Your task to perform on an android device: open app "Microsoft Outlook" (install if not already installed) Image 0: 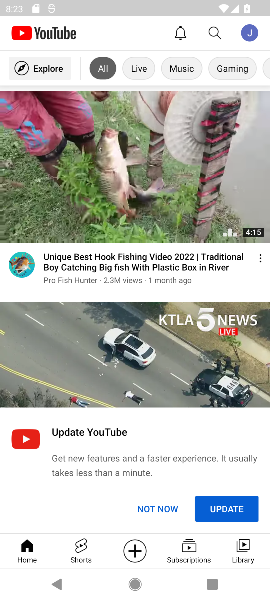
Step 0: press home button
Your task to perform on an android device: open app "Microsoft Outlook" (install if not already installed) Image 1: 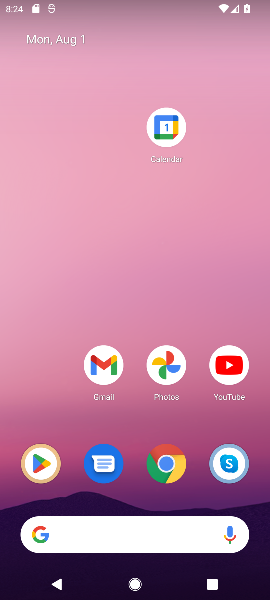
Step 1: click (28, 456)
Your task to perform on an android device: open app "Microsoft Outlook" (install if not already installed) Image 2: 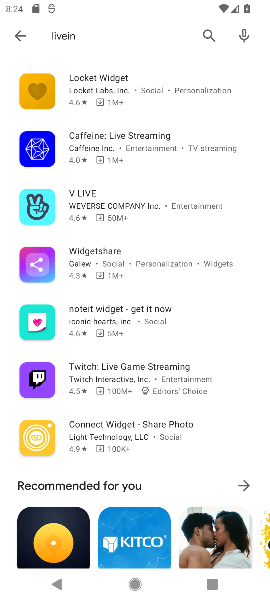
Step 2: click (203, 48)
Your task to perform on an android device: open app "Microsoft Outlook" (install if not already installed) Image 3: 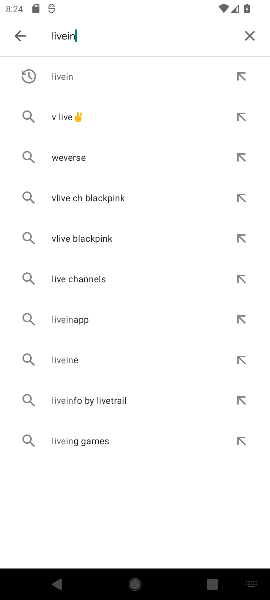
Step 3: click (245, 37)
Your task to perform on an android device: open app "Microsoft Outlook" (install if not already installed) Image 4: 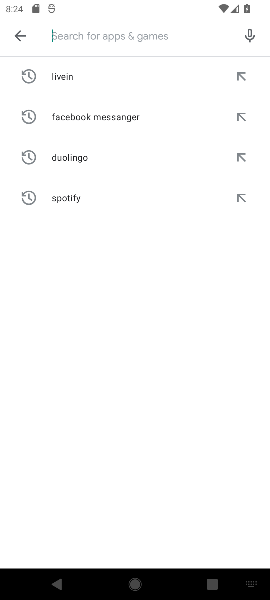
Step 4: type "outlook"
Your task to perform on an android device: open app "Microsoft Outlook" (install if not already installed) Image 5: 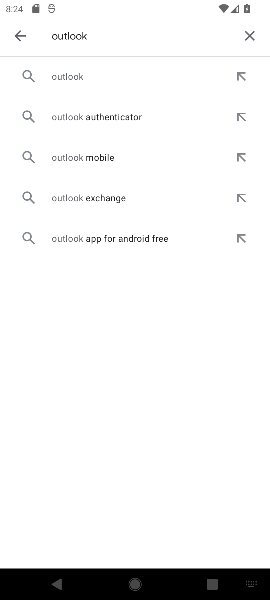
Step 5: click (97, 64)
Your task to perform on an android device: open app "Microsoft Outlook" (install if not already installed) Image 6: 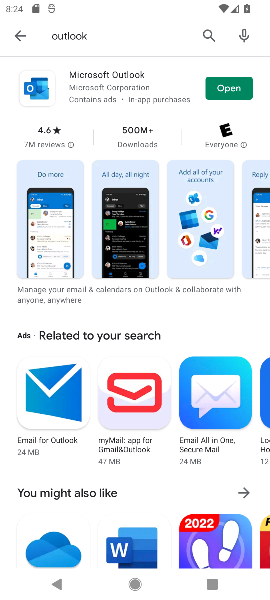
Step 6: click (241, 96)
Your task to perform on an android device: open app "Microsoft Outlook" (install if not already installed) Image 7: 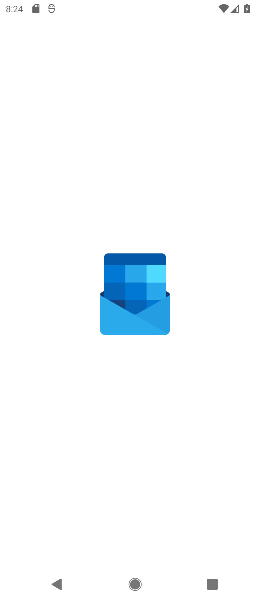
Step 7: task complete